Your task to perform on an android device: Open privacy settings Image 0: 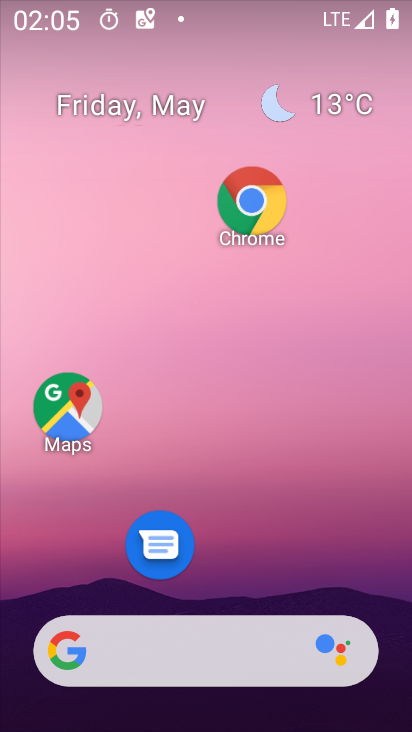
Step 0: drag from (224, 526) to (224, 103)
Your task to perform on an android device: Open privacy settings Image 1: 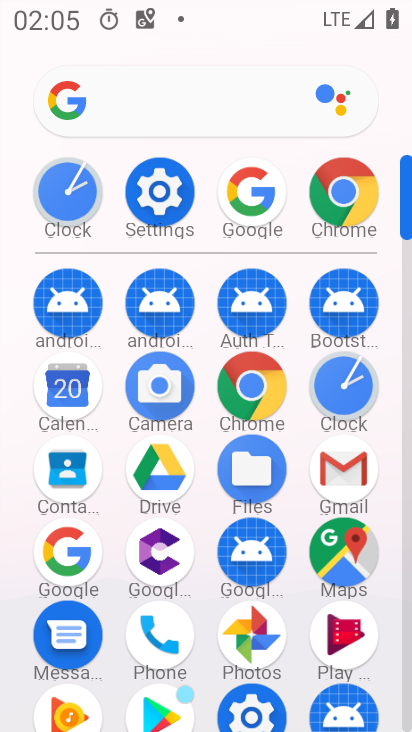
Step 1: click (159, 200)
Your task to perform on an android device: Open privacy settings Image 2: 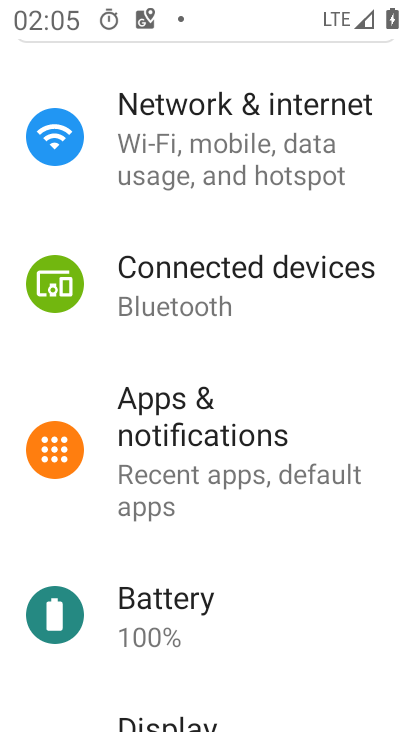
Step 2: drag from (227, 569) to (176, 238)
Your task to perform on an android device: Open privacy settings Image 3: 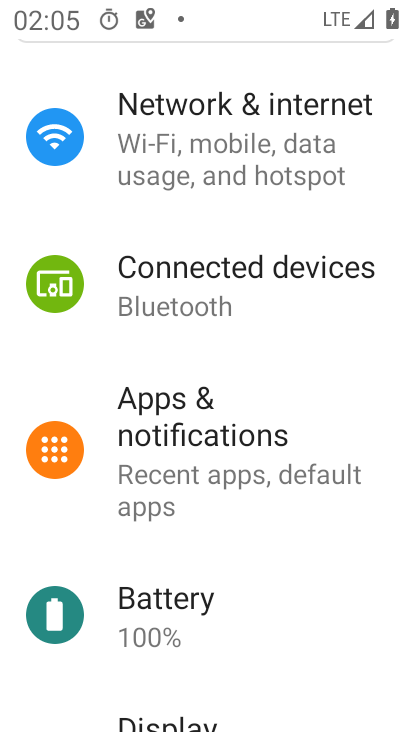
Step 3: drag from (218, 587) to (285, 208)
Your task to perform on an android device: Open privacy settings Image 4: 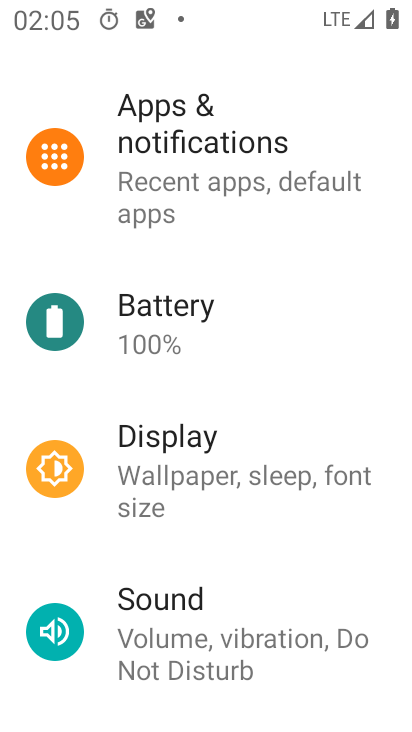
Step 4: drag from (264, 374) to (277, 264)
Your task to perform on an android device: Open privacy settings Image 5: 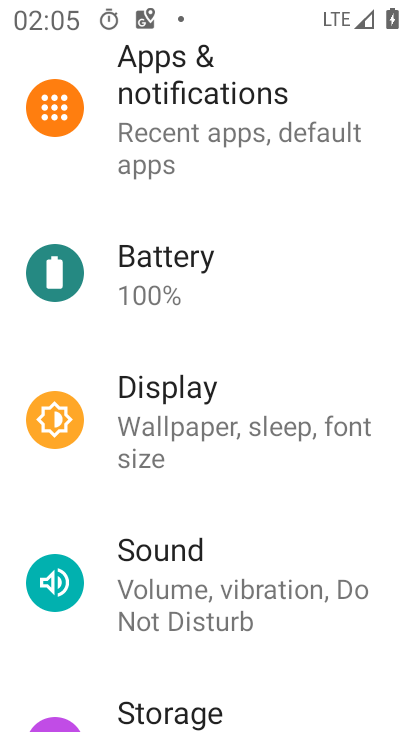
Step 5: drag from (194, 629) to (207, 246)
Your task to perform on an android device: Open privacy settings Image 6: 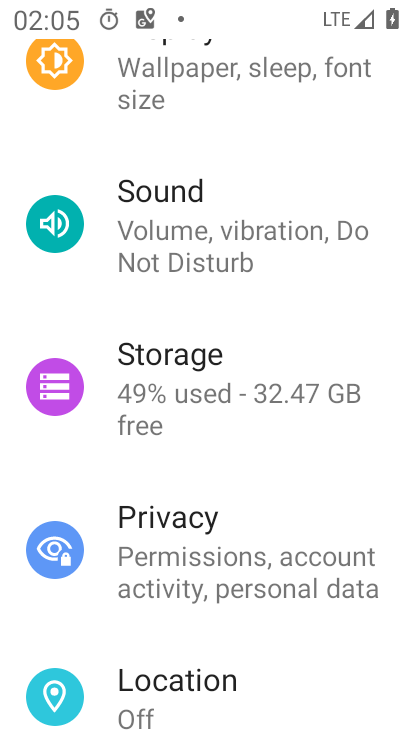
Step 6: click (175, 583)
Your task to perform on an android device: Open privacy settings Image 7: 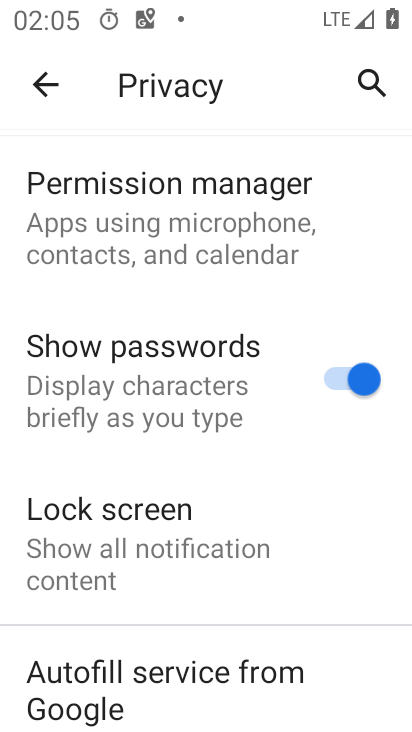
Step 7: task complete